Your task to perform on an android device: turn on bluetooth scan Image 0: 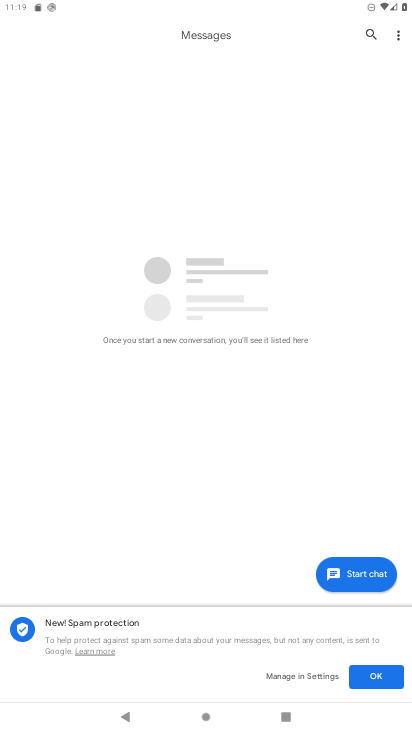
Step 0: press home button
Your task to perform on an android device: turn on bluetooth scan Image 1: 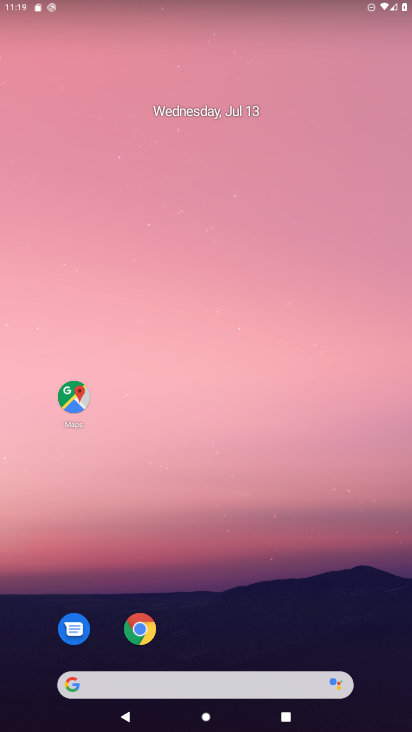
Step 1: drag from (386, 646) to (278, 47)
Your task to perform on an android device: turn on bluetooth scan Image 2: 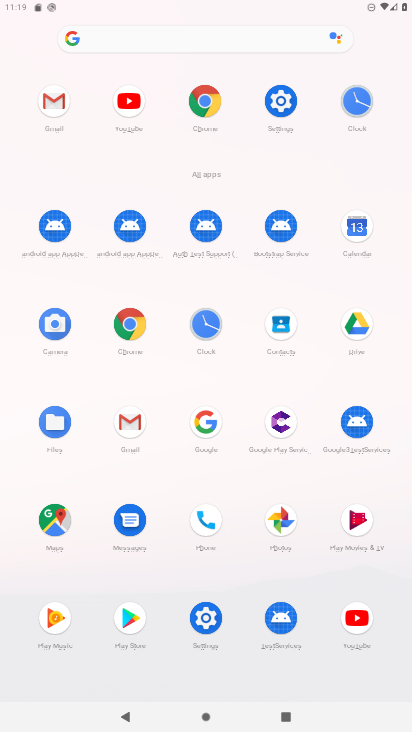
Step 2: click (203, 615)
Your task to perform on an android device: turn on bluetooth scan Image 3: 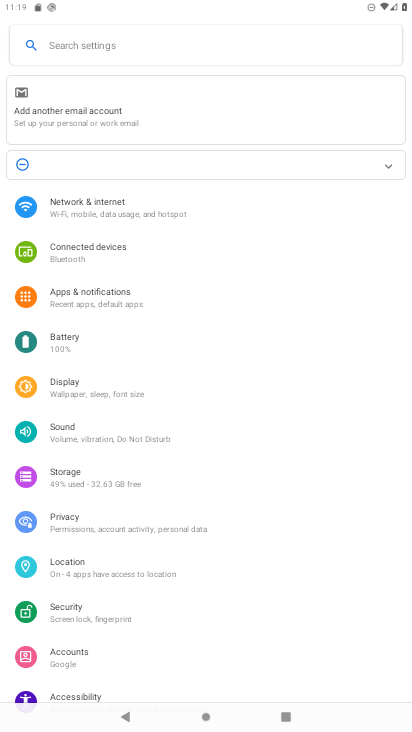
Step 3: click (75, 568)
Your task to perform on an android device: turn on bluetooth scan Image 4: 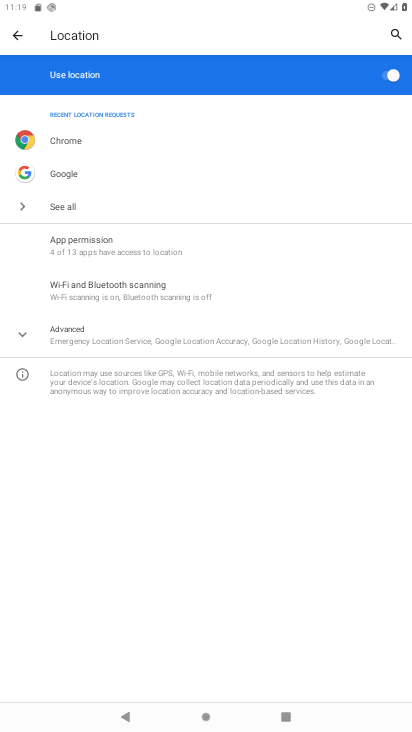
Step 4: click (100, 293)
Your task to perform on an android device: turn on bluetooth scan Image 5: 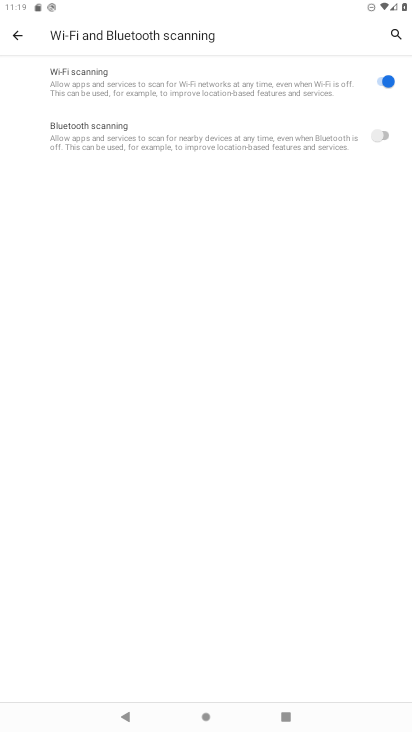
Step 5: click (378, 123)
Your task to perform on an android device: turn on bluetooth scan Image 6: 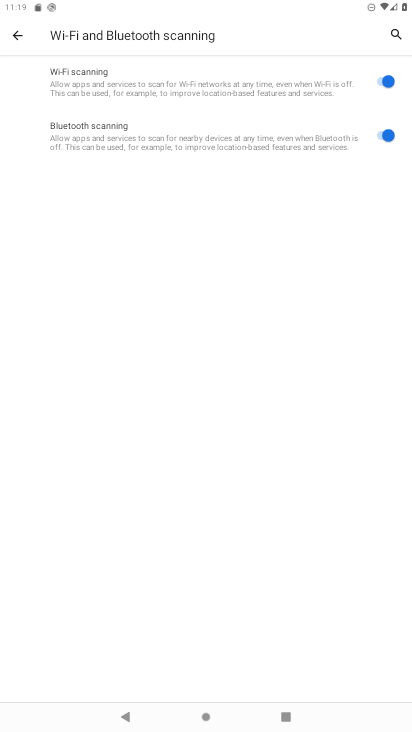
Step 6: task complete